Your task to perform on an android device: Show me recent news Image 0: 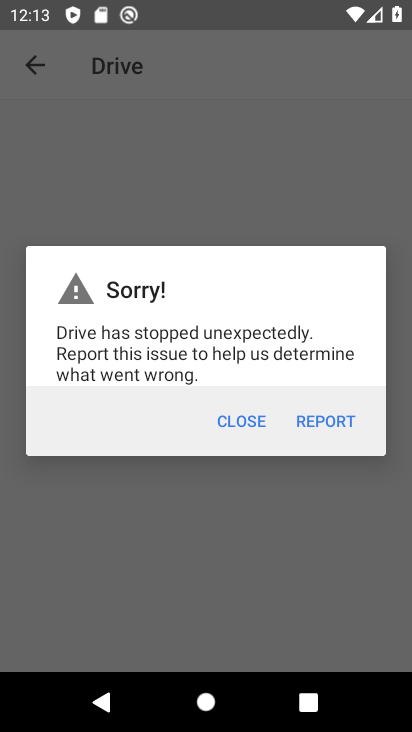
Step 0: press home button
Your task to perform on an android device: Show me recent news Image 1: 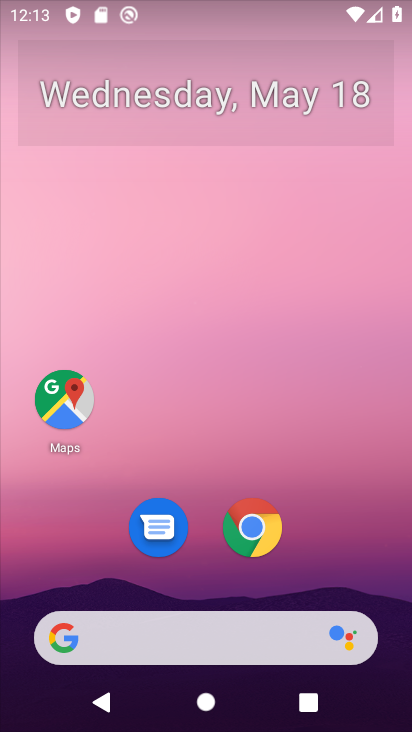
Step 1: drag from (212, 586) to (226, 131)
Your task to perform on an android device: Show me recent news Image 2: 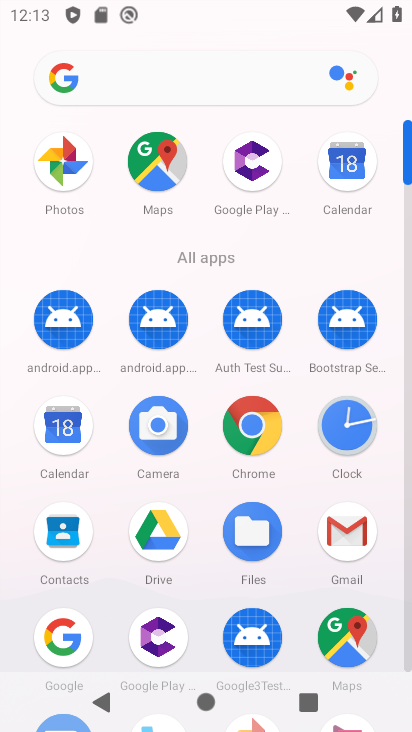
Step 2: click (196, 83)
Your task to perform on an android device: Show me recent news Image 3: 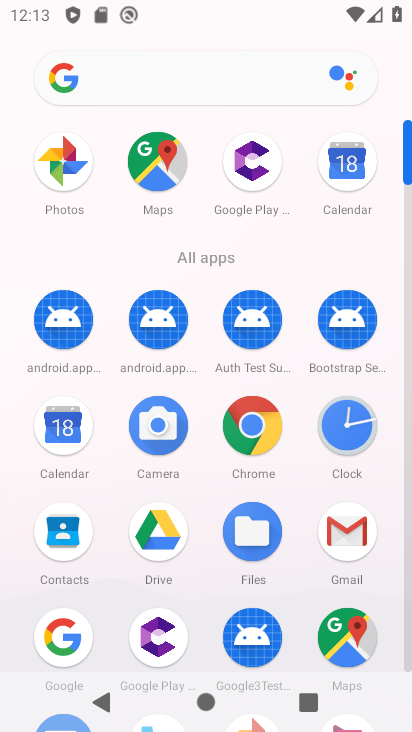
Step 3: type "recent news"
Your task to perform on an android device: Show me recent news Image 4: 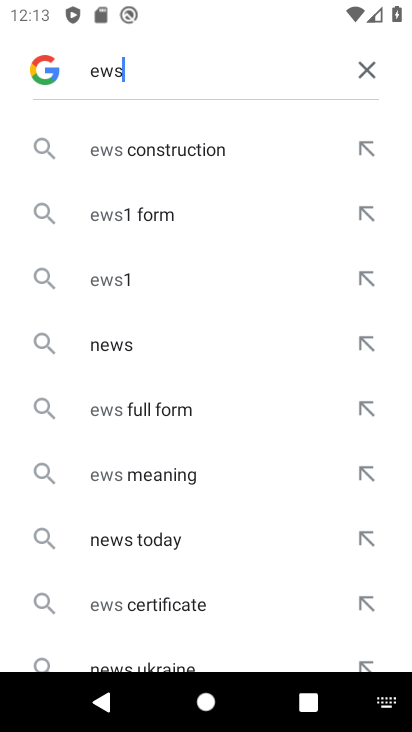
Step 4: click (363, 68)
Your task to perform on an android device: Show me recent news Image 5: 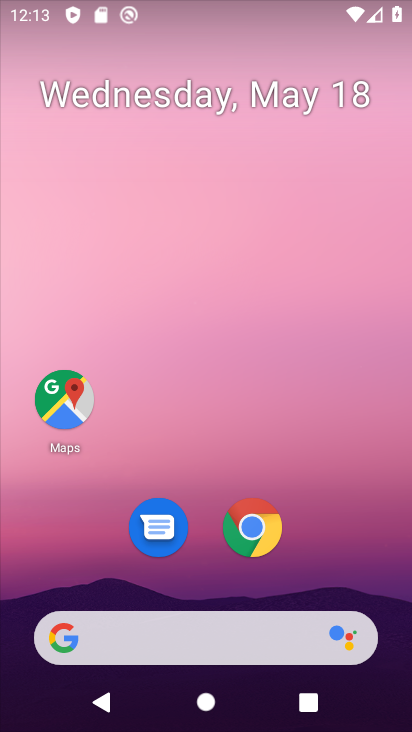
Step 5: type "rece"
Your task to perform on an android device: Show me recent news Image 6: 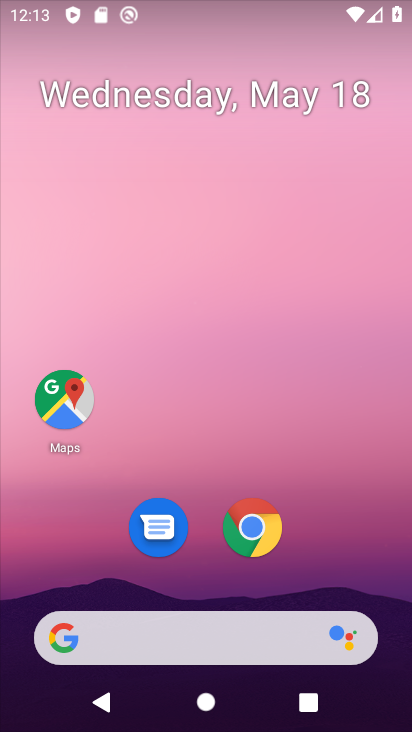
Step 6: click (191, 647)
Your task to perform on an android device: Show me recent news Image 7: 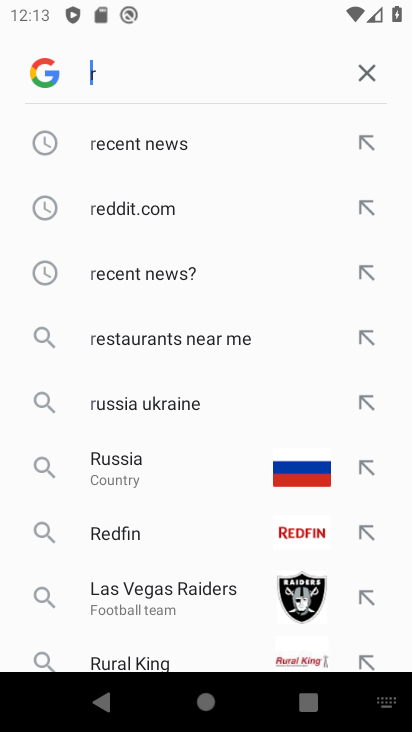
Step 7: click (180, 154)
Your task to perform on an android device: Show me recent news Image 8: 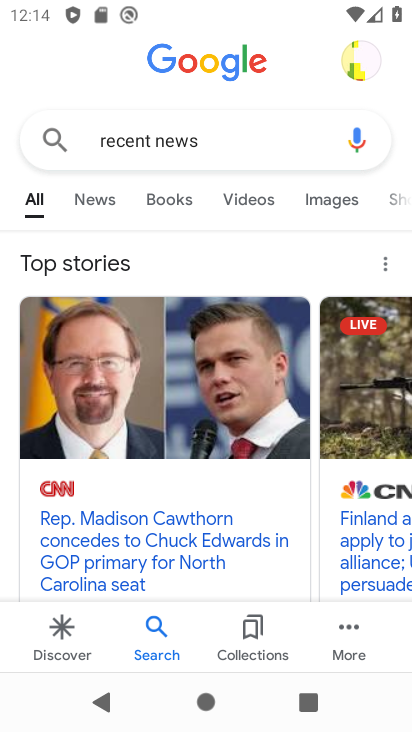
Step 8: task complete